Your task to perform on an android device: turn off location history Image 0: 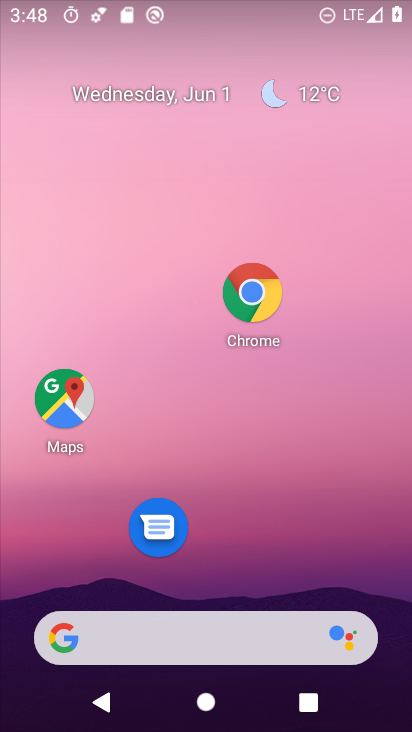
Step 0: drag from (319, 565) to (330, 271)
Your task to perform on an android device: turn off location history Image 1: 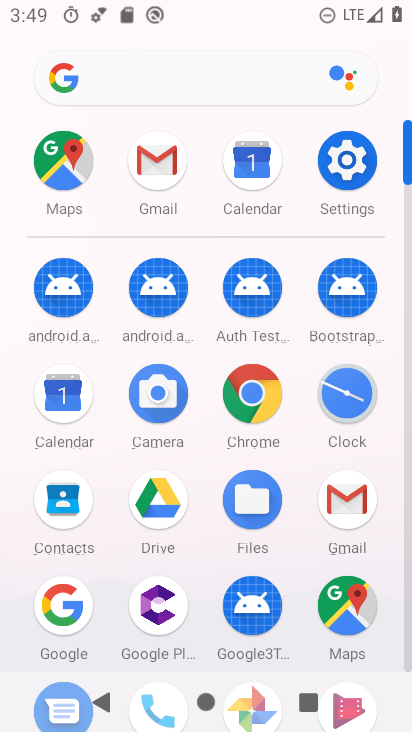
Step 1: click (365, 192)
Your task to perform on an android device: turn off location history Image 2: 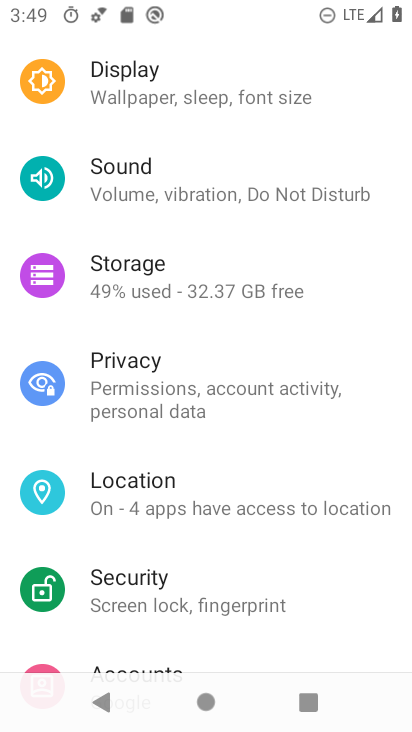
Step 2: click (199, 485)
Your task to perform on an android device: turn off location history Image 3: 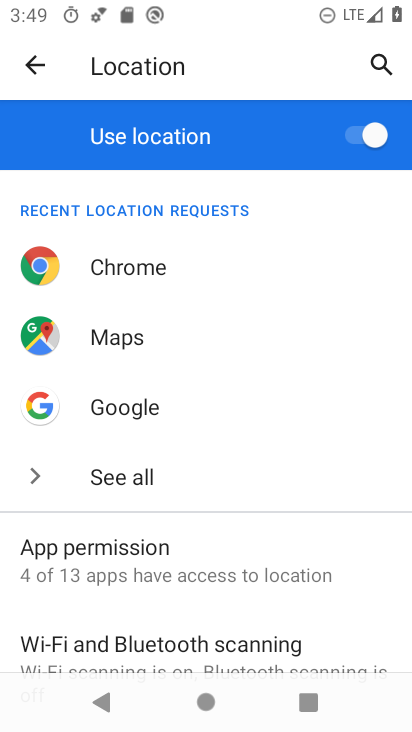
Step 3: drag from (263, 534) to (283, 168)
Your task to perform on an android device: turn off location history Image 4: 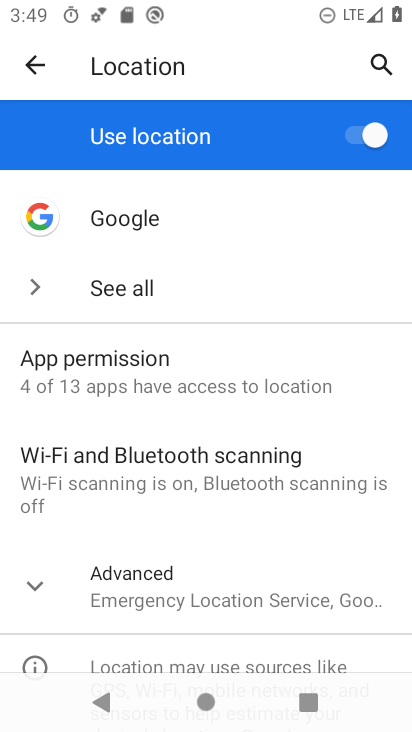
Step 4: click (235, 584)
Your task to perform on an android device: turn off location history Image 5: 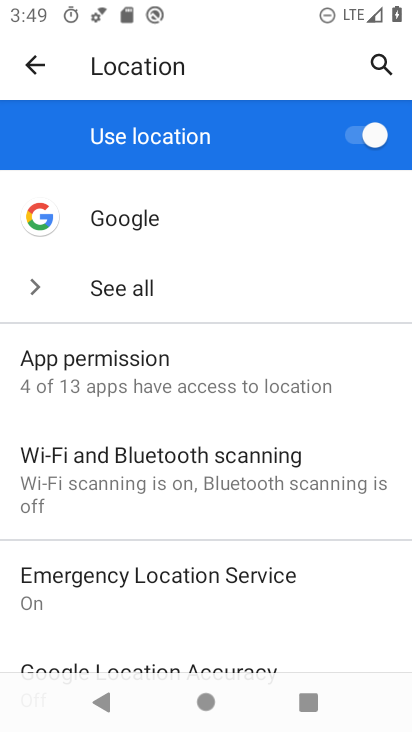
Step 5: drag from (246, 641) to (289, 344)
Your task to perform on an android device: turn off location history Image 6: 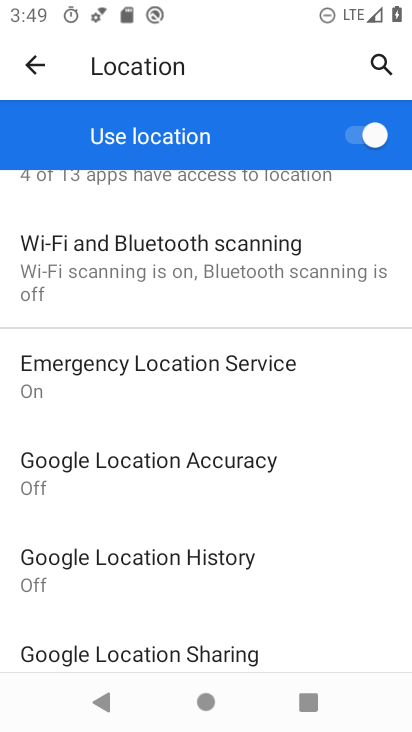
Step 6: click (234, 554)
Your task to perform on an android device: turn off location history Image 7: 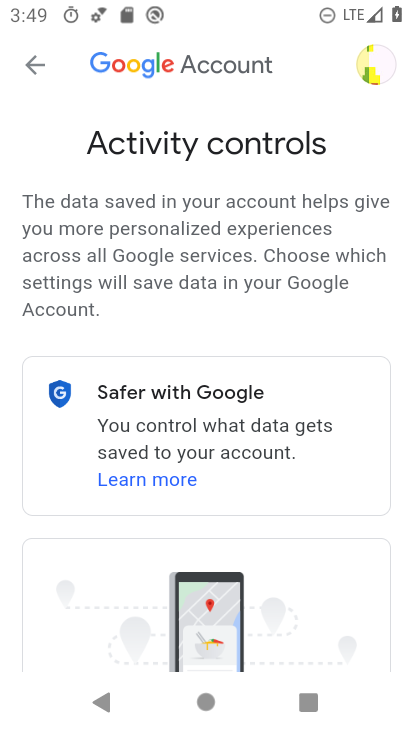
Step 7: drag from (252, 647) to (212, 190)
Your task to perform on an android device: turn off location history Image 8: 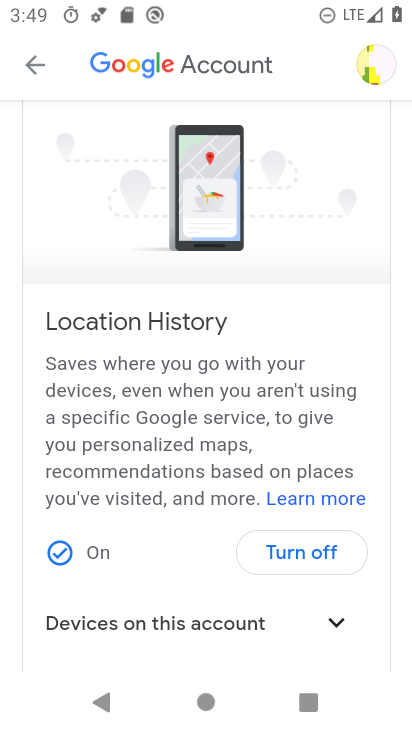
Step 8: click (297, 548)
Your task to perform on an android device: turn off location history Image 9: 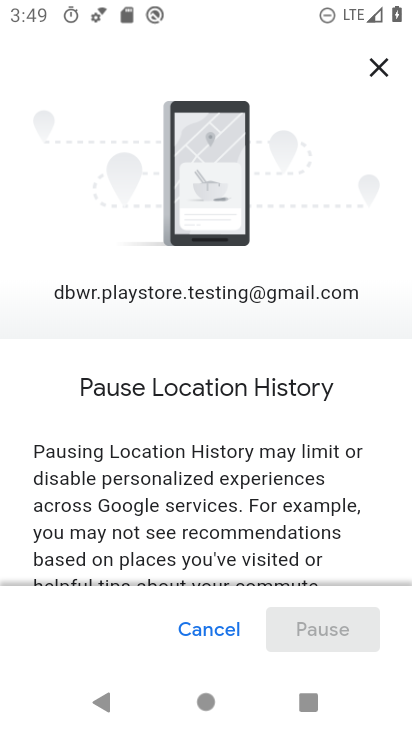
Step 9: drag from (297, 548) to (316, 188)
Your task to perform on an android device: turn off location history Image 10: 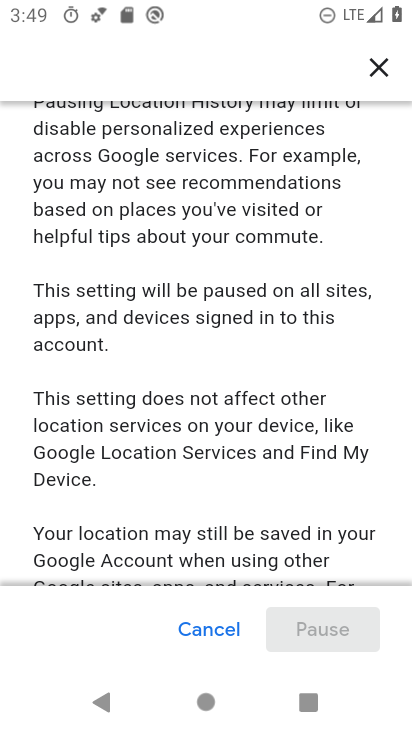
Step 10: drag from (302, 389) to (328, 146)
Your task to perform on an android device: turn off location history Image 11: 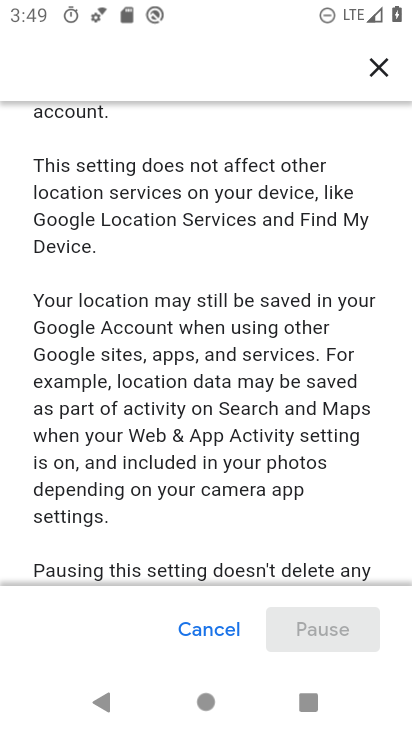
Step 11: drag from (300, 471) to (302, 224)
Your task to perform on an android device: turn off location history Image 12: 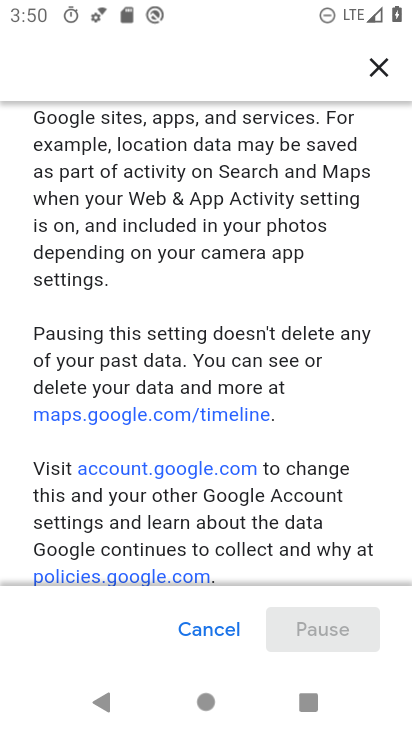
Step 12: drag from (266, 538) to (278, 213)
Your task to perform on an android device: turn off location history Image 13: 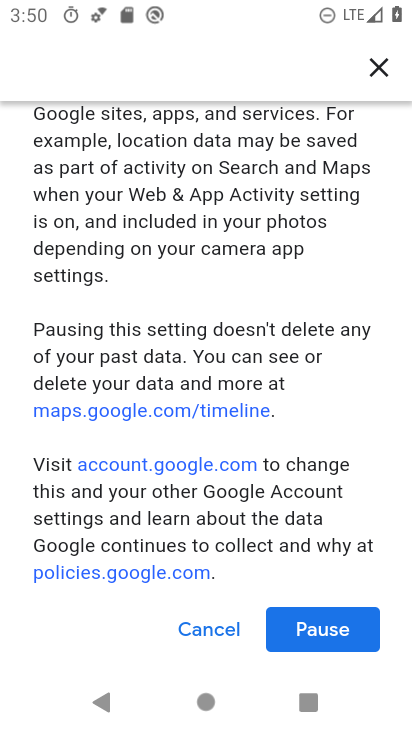
Step 13: click (323, 631)
Your task to perform on an android device: turn off location history Image 14: 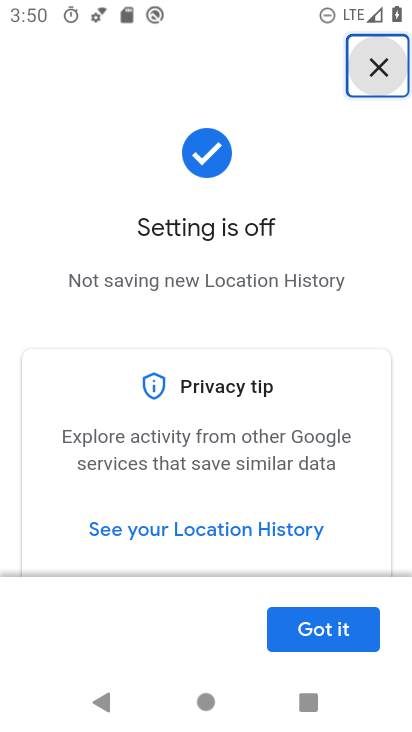
Step 14: task complete